Your task to perform on an android device: turn on javascript in the chrome app Image 0: 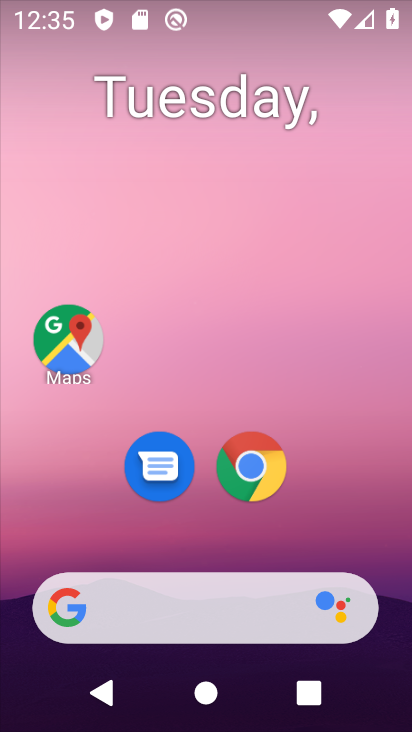
Step 0: drag from (355, 509) to (390, 218)
Your task to perform on an android device: turn on javascript in the chrome app Image 1: 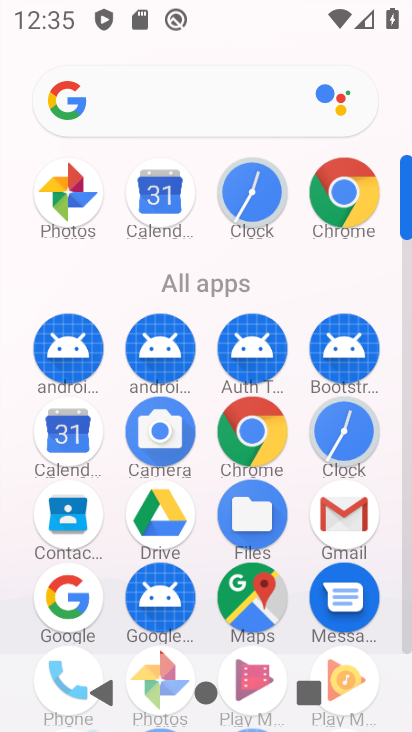
Step 1: click (276, 434)
Your task to perform on an android device: turn on javascript in the chrome app Image 2: 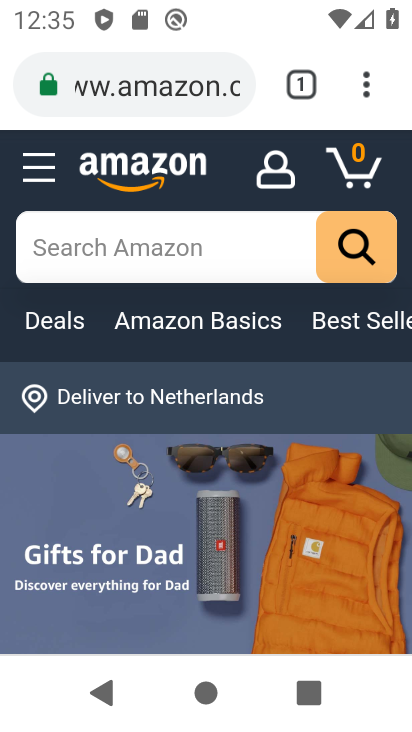
Step 2: click (366, 98)
Your task to perform on an android device: turn on javascript in the chrome app Image 3: 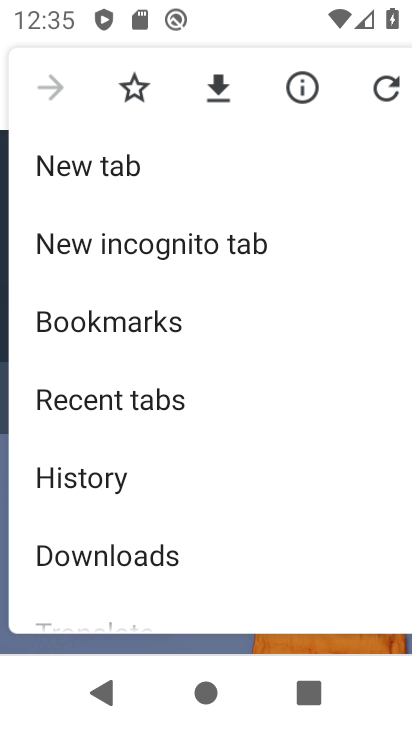
Step 3: drag from (272, 516) to (288, 427)
Your task to perform on an android device: turn on javascript in the chrome app Image 4: 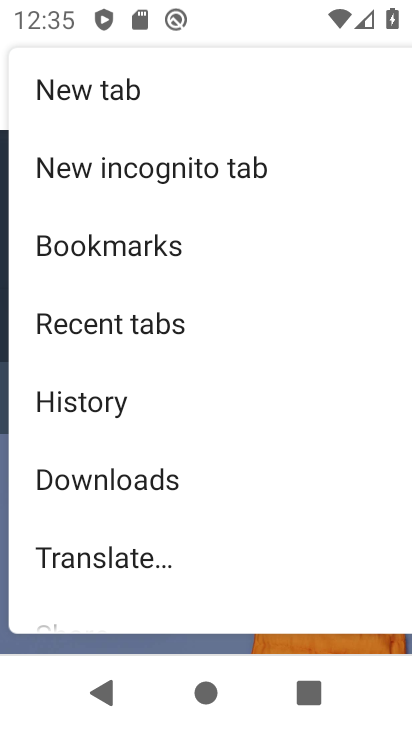
Step 4: drag from (284, 542) to (299, 440)
Your task to perform on an android device: turn on javascript in the chrome app Image 5: 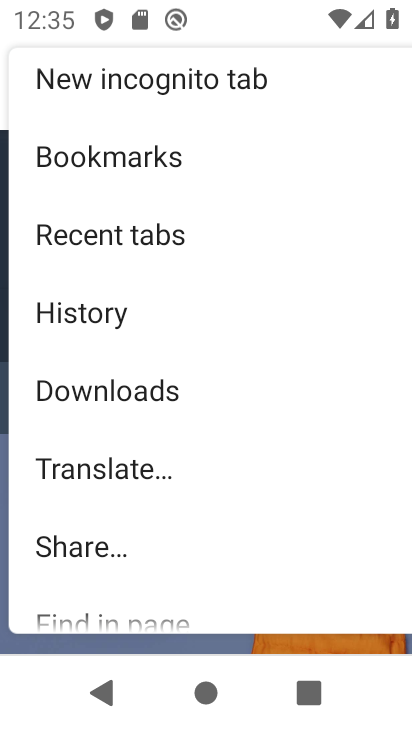
Step 5: drag from (291, 503) to (300, 426)
Your task to perform on an android device: turn on javascript in the chrome app Image 6: 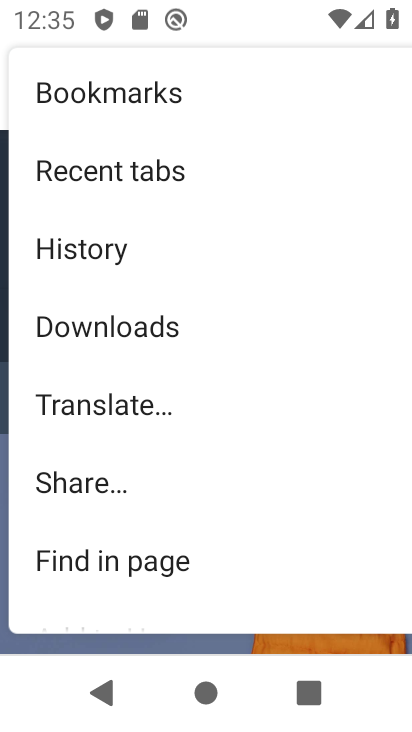
Step 6: drag from (297, 529) to (306, 449)
Your task to perform on an android device: turn on javascript in the chrome app Image 7: 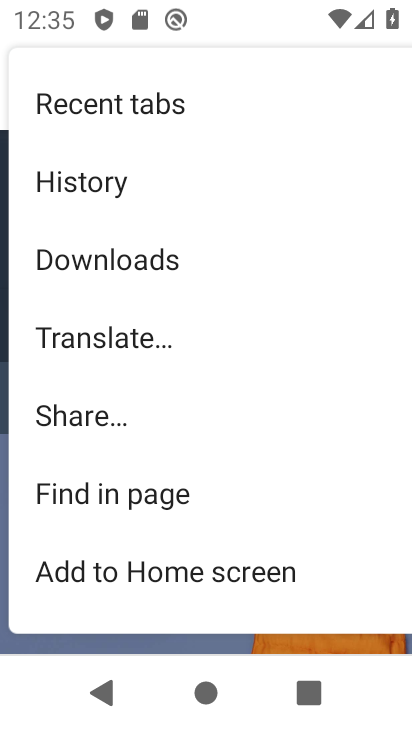
Step 7: drag from (324, 450) to (332, 341)
Your task to perform on an android device: turn on javascript in the chrome app Image 8: 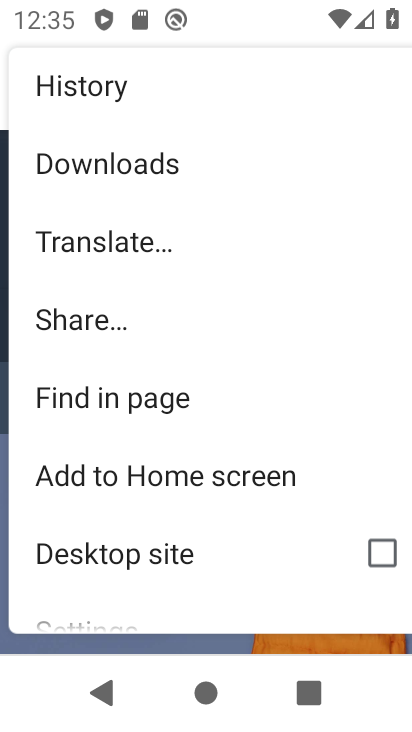
Step 8: drag from (298, 519) to (311, 393)
Your task to perform on an android device: turn on javascript in the chrome app Image 9: 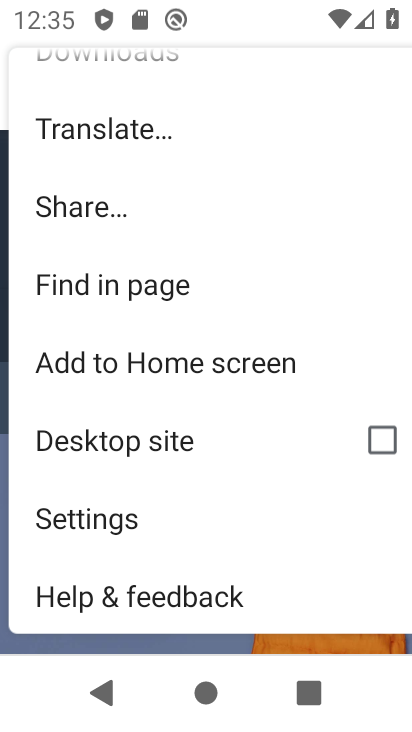
Step 9: click (122, 523)
Your task to perform on an android device: turn on javascript in the chrome app Image 10: 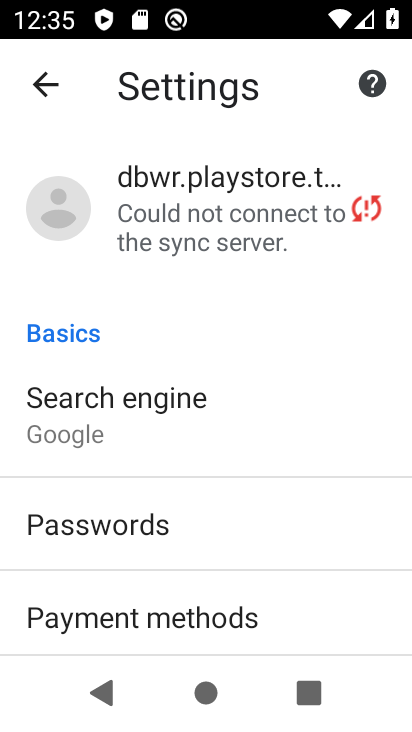
Step 10: drag from (296, 527) to (305, 457)
Your task to perform on an android device: turn on javascript in the chrome app Image 11: 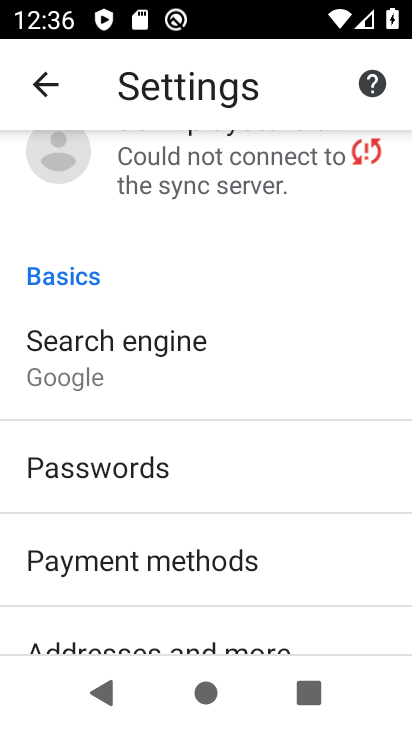
Step 11: drag from (320, 489) to (328, 391)
Your task to perform on an android device: turn on javascript in the chrome app Image 12: 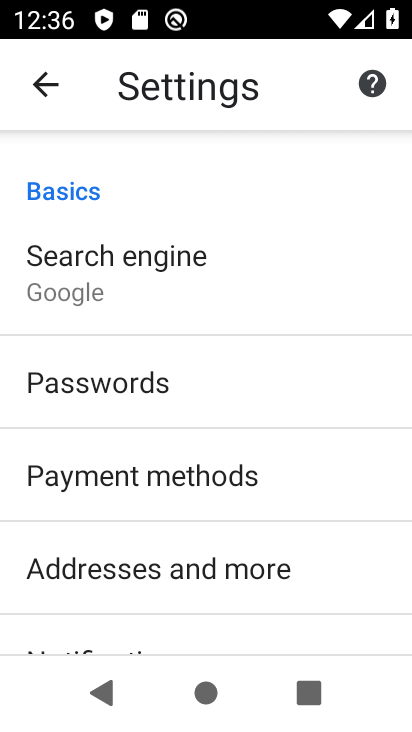
Step 12: drag from (332, 461) to (338, 405)
Your task to perform on an android device: turn on javascript in the chrome app Image 13: 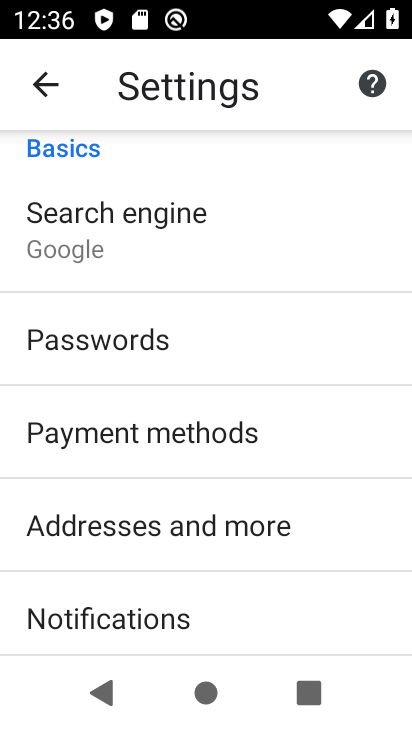
Step 13: drag from (336, 457) to (341, 401)
Your task to perform on an android device: turn on javascript in the chrome app Image 14: 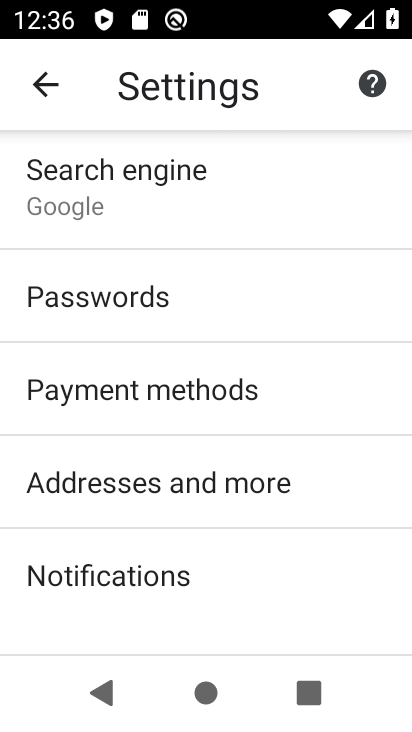
Step 14: drag from (332, 466) to (336, 377)
Your task to perform on an android device: turn on javascript in the chrome app Image 15: 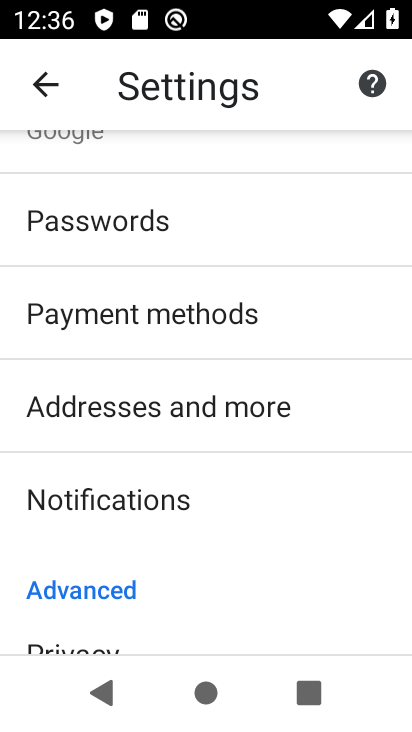
Step 15: drag from (329, 473) to (337, 356)
Your task to perform on an android device: turn on javascript in the chrome app Image 16: 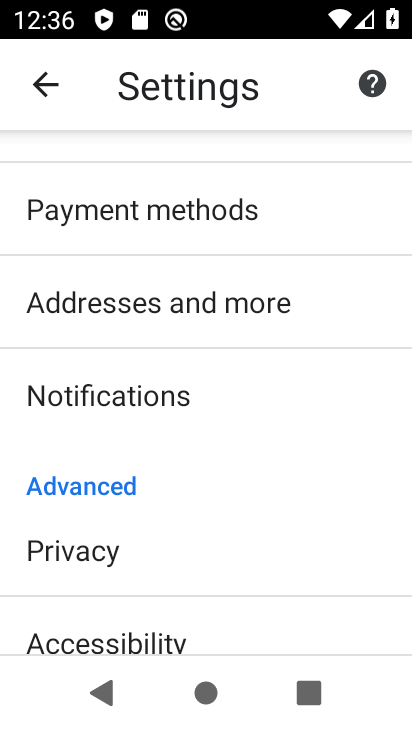
Step 16: drag from (331, 547) to (345, 446)
Your task to perform on an android device: turn on javascript in the chrome app Image 17: 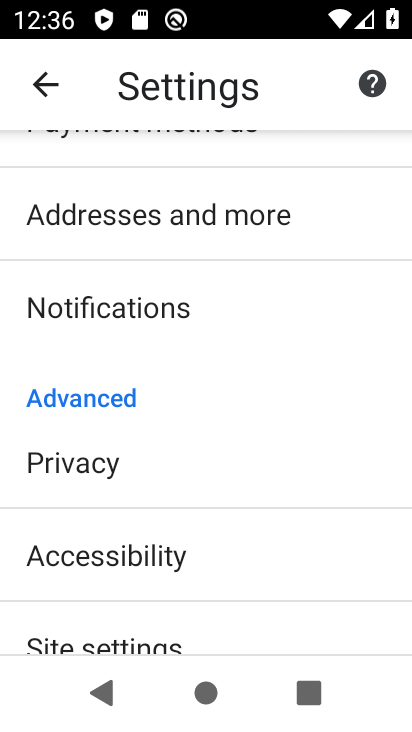
Step 17: drag from (340, 563) to (354, 461)
Your task to perform on an android device: turn on javascript in the chrome app Image 18: 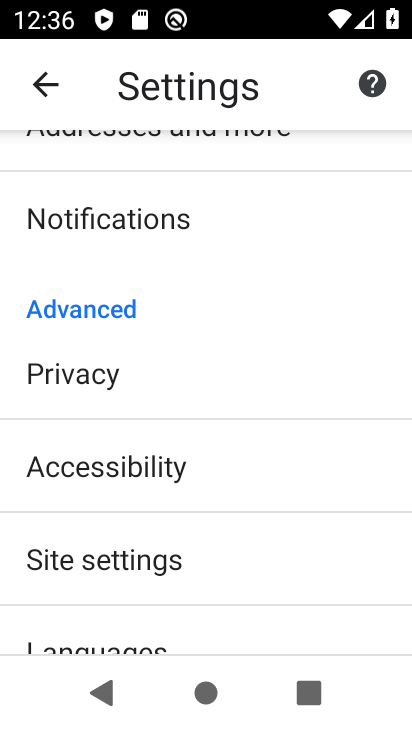
Step 18: drag from (330, 558) to (323, 438)
Your task to perform on an android device: turn on javascript in the chrome app Image 19: 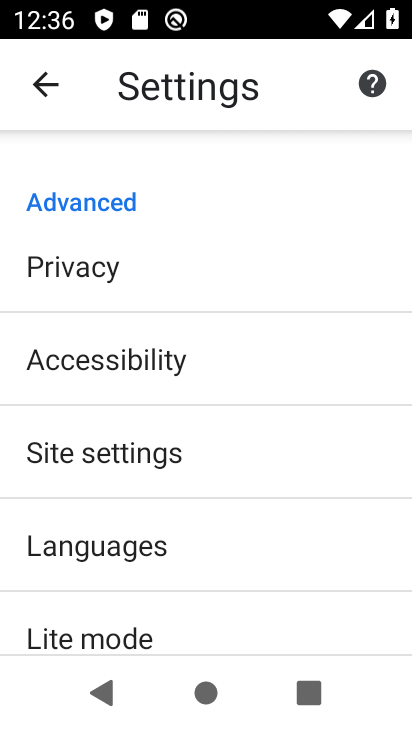
Step 19: click (283, 465)
Your task to perform on an android device: turn on javascript in the chrome app Image 20: 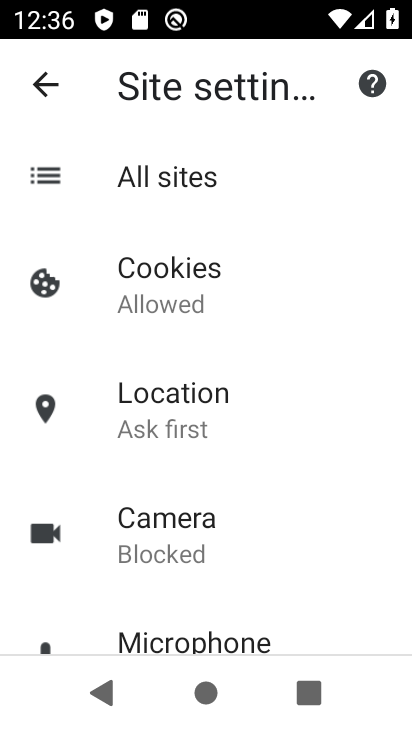
Step 20: drag from (299, 486) to (301, 406)
Your task to perform on an android device: turn on javascript in the chrome app Image 21: 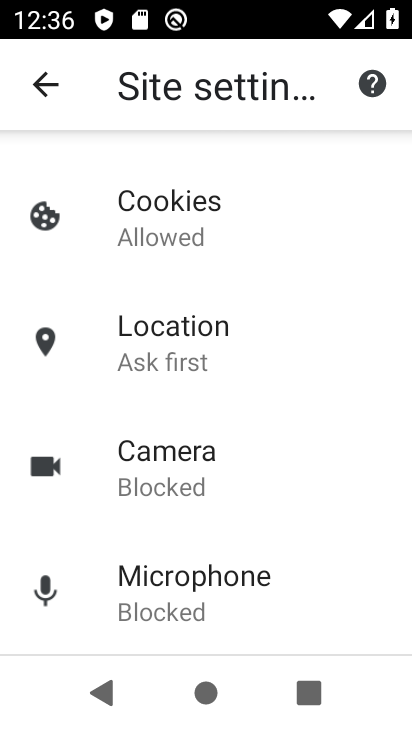
Step 21: drag from (316, 530) to (322, 411)
Your task to perform on an android device: turn on javascript in the chrome app Image 22: 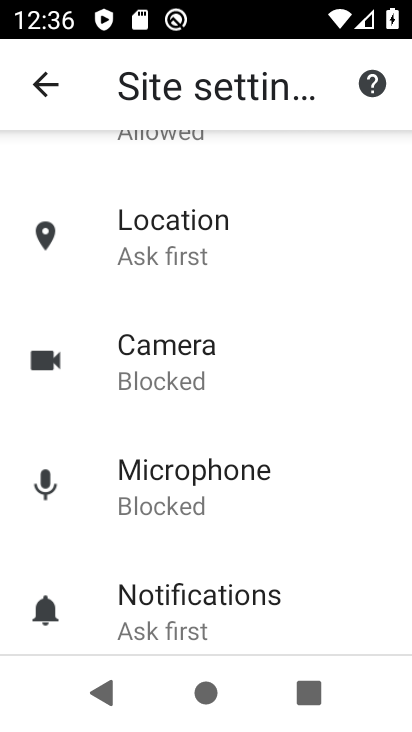
Step 22: drag from (337, 531) to (340, 413)
Your task to perform on an android device: turn on javascript in the chrome app Image 23: 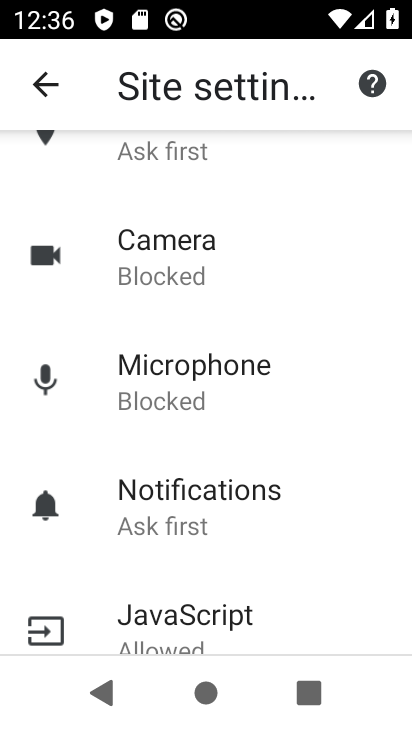
Step 23: drag from (326, 541) to (341, 419)
Your task to perform on an android device: turn on javascript in the chrome app Image 24: 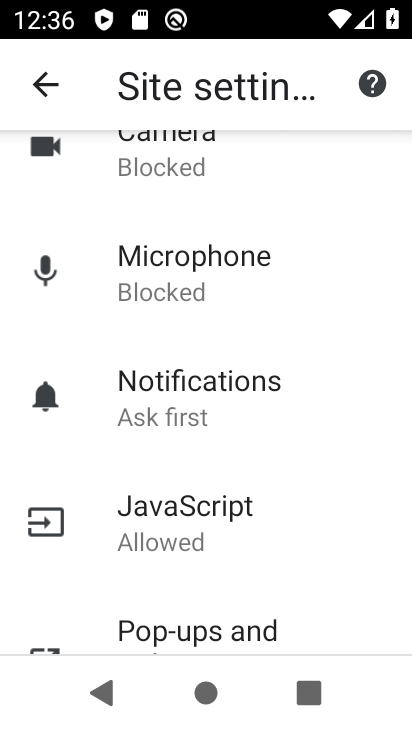
Step 24: click (223, 519)
Your task to perform on an android device: turn on javascript in the chrome app Image 25: 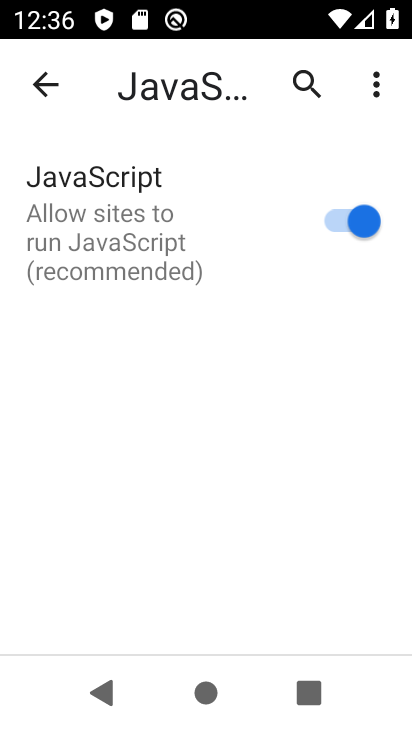
Step 25: task complete